Your task to perform on an android device: toggle pop-ups in chrome Image 0: 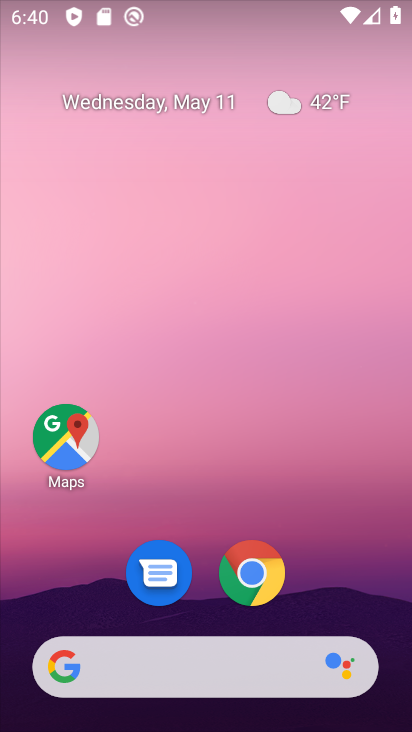
Step 0: click (253, 592)
Your task to perform on an android device: toggle pop-ups in chrome Image 1: 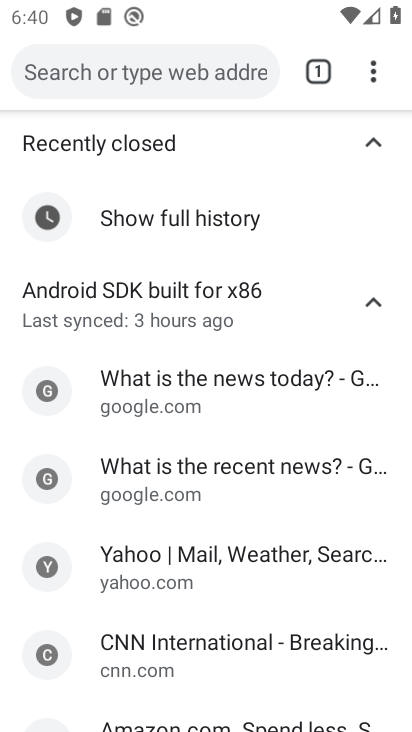
Step 1: click (371, 66)
Your task to perform on an android device: toggle pop-ups in chrome Image 2: 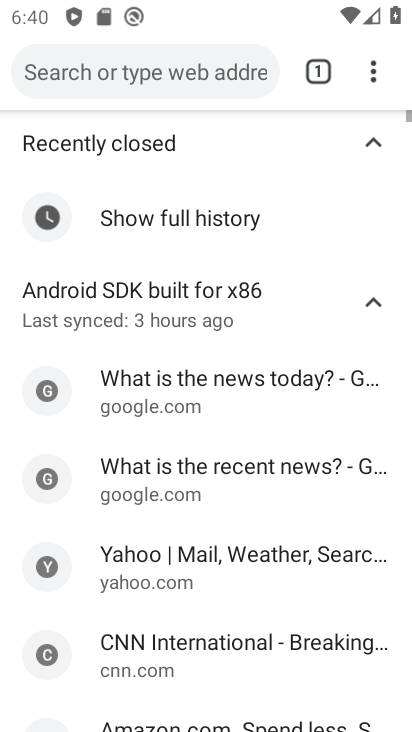
Step 2: click (371, 66)
Your task to perform on an android device: toggle pop-ups in chrome Image 3: 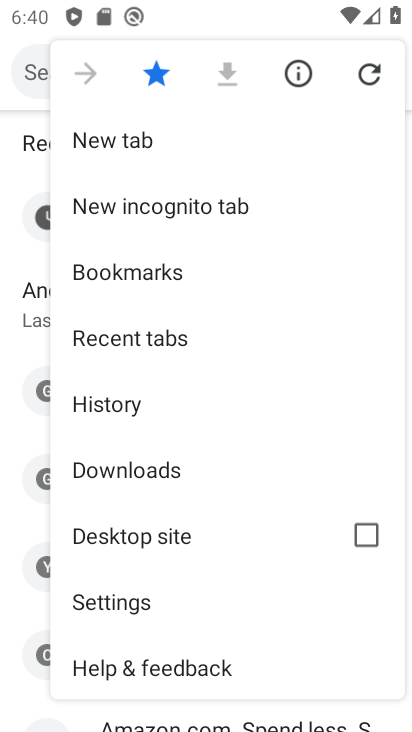
Step 3: click (131, 615)
Your task to perform on an android device: toggle pop-ups in chrome Image 4: 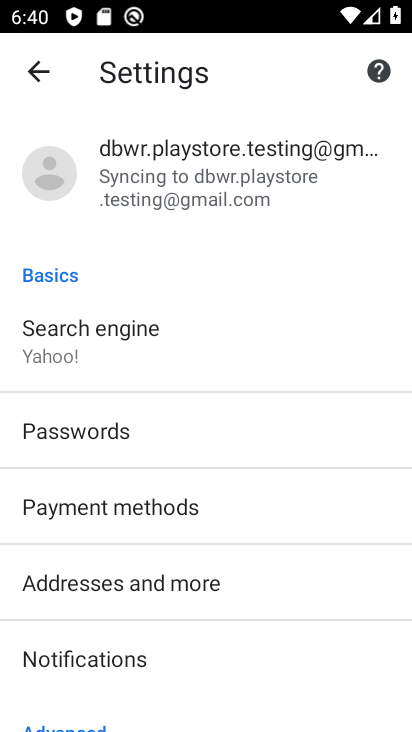
Step 4: drag from (130, 655) to (198, 191)
Your task to perform on an android device: toggle pop-ups in chrome Image 5: 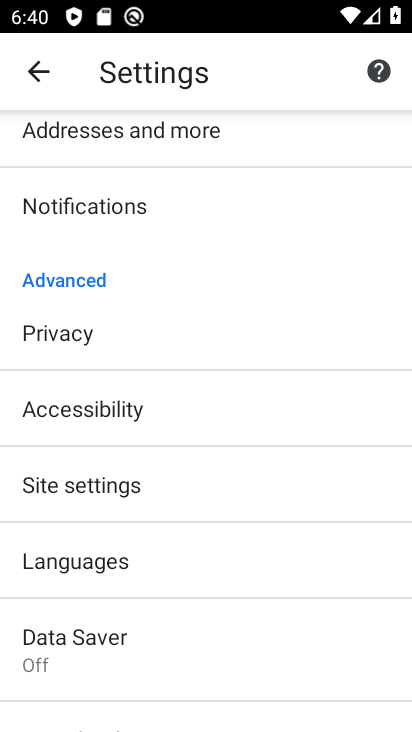
Step 5: click (194, 428)
Your task to perform on an android device: toggle pop-ups in chrome Image 6: 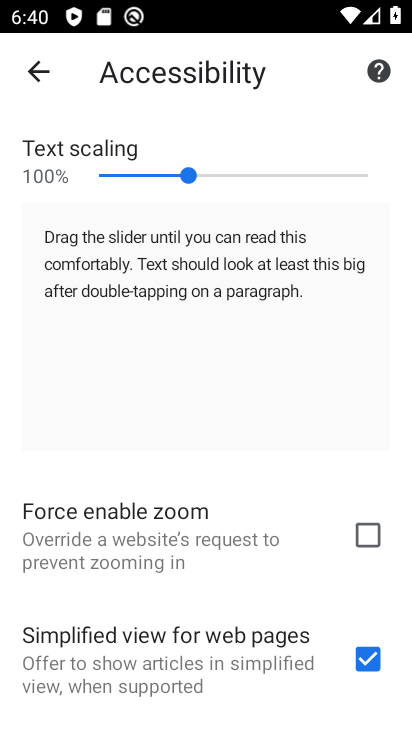
Step 6: click (45, 63)
Your task to perform on an android device: toggle pop-ups in chrome Image 7: 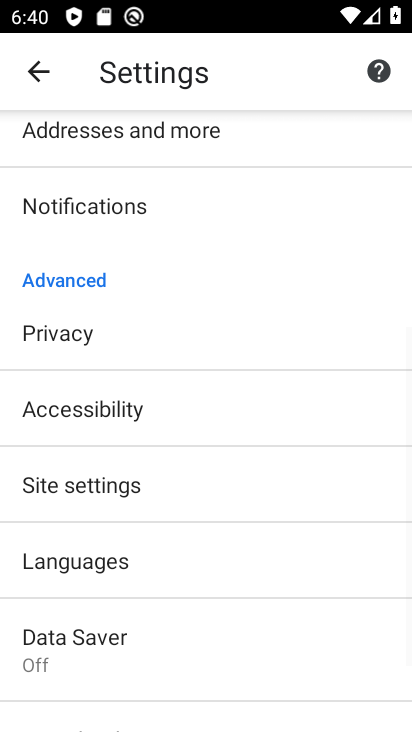
Step 7: drag from (232, 644) to (254, 388)
Your task to perform on an android device: toggle pop-ups in chrome Image 8: 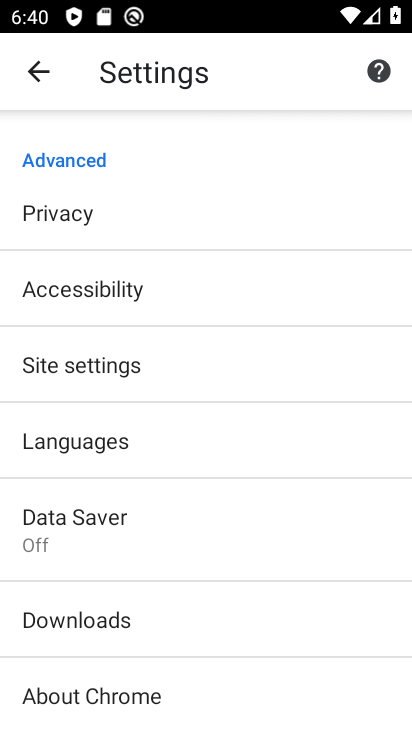
Step 8: click (74, 365)
Your task to perform on an android device: toggle pop-ups in chrome Image 9: 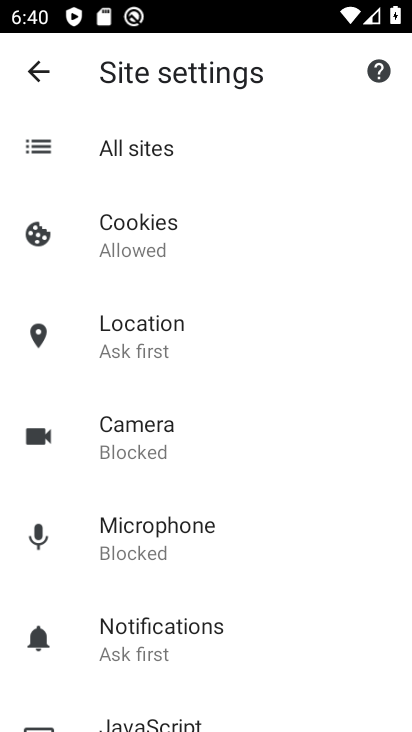
Step 9: drag from (239, 652) to (291, 352)
Your task to perform on an android device: toggle pop-ups in chrome Image 10: 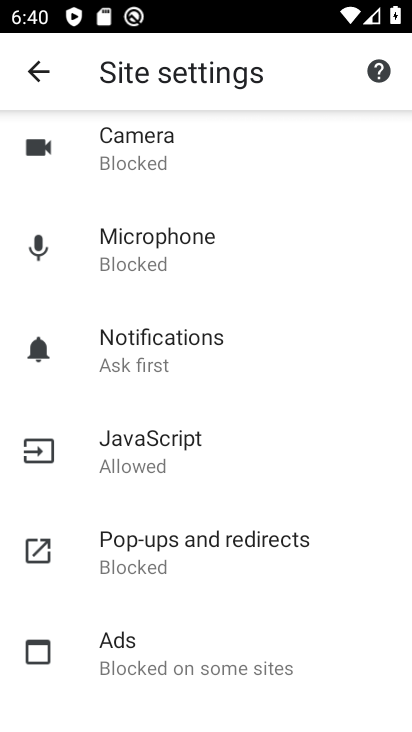
Step 10: click (231, 567)
Your task to perform on an android device: toggle pop-ups in chrome Image 11: 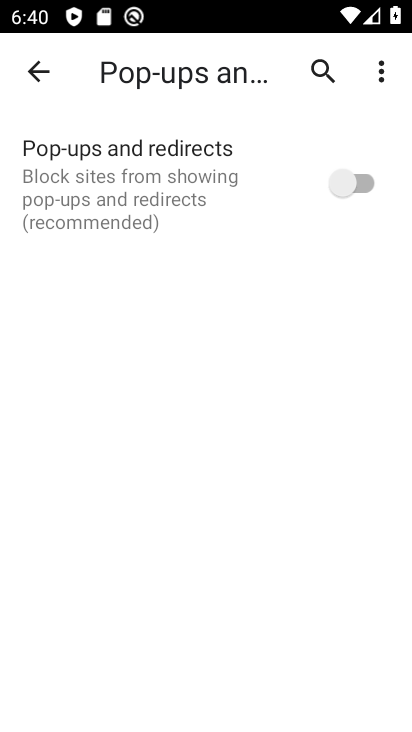
Step 11: click (371, 181)
Your task to perform on an android device: toggle pop-ups in chrome Image 12: 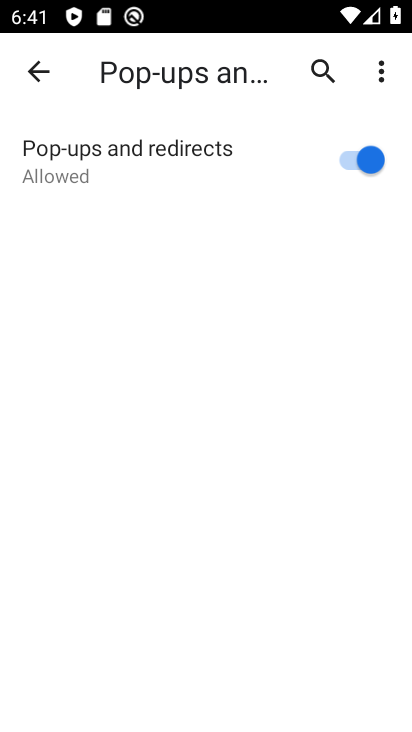
Step 12: task complete